Your task to perform on an android device: Open maps Image 0: 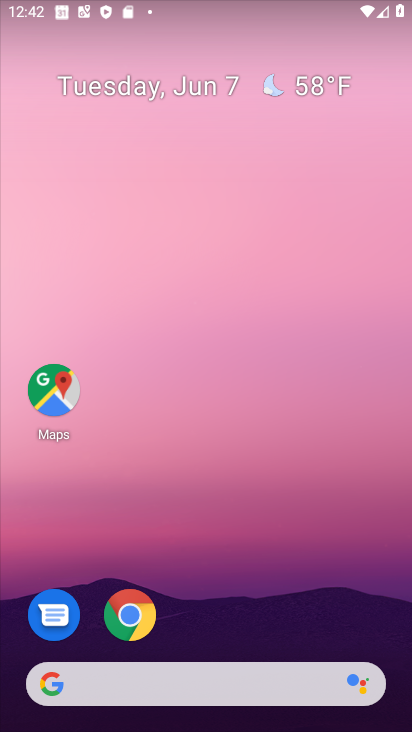
Step 0: click (53, 395)
Your task to perform on an android device: Open maps Image 1: 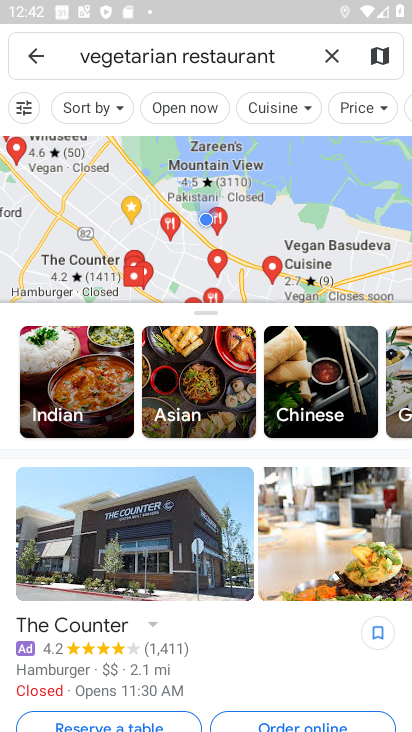
Step 1: click (331, 51)
Your task to perform on an android device: Open maps Image 2: 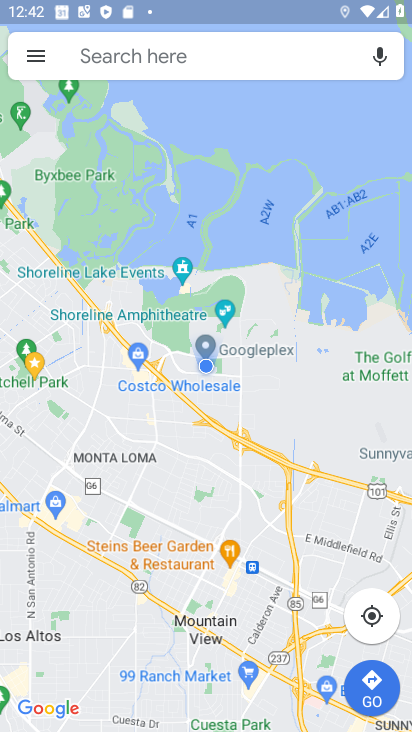
Step 2: task complete